Your task to perform on an android device: Search for Italian restaurants on Maps Image 0: 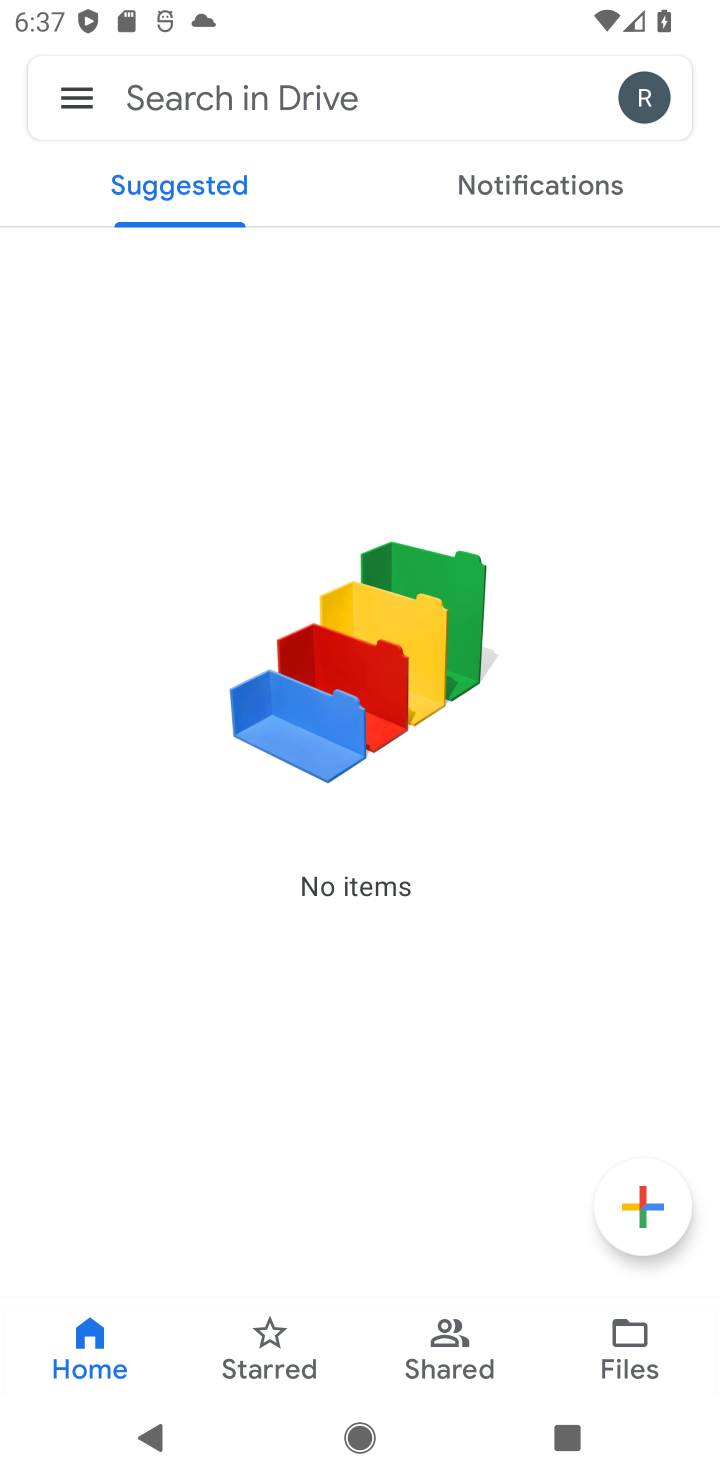
Step 0: press home button
Your task to perform on an android device: Search for Italian restaurants on Maps Image 1: 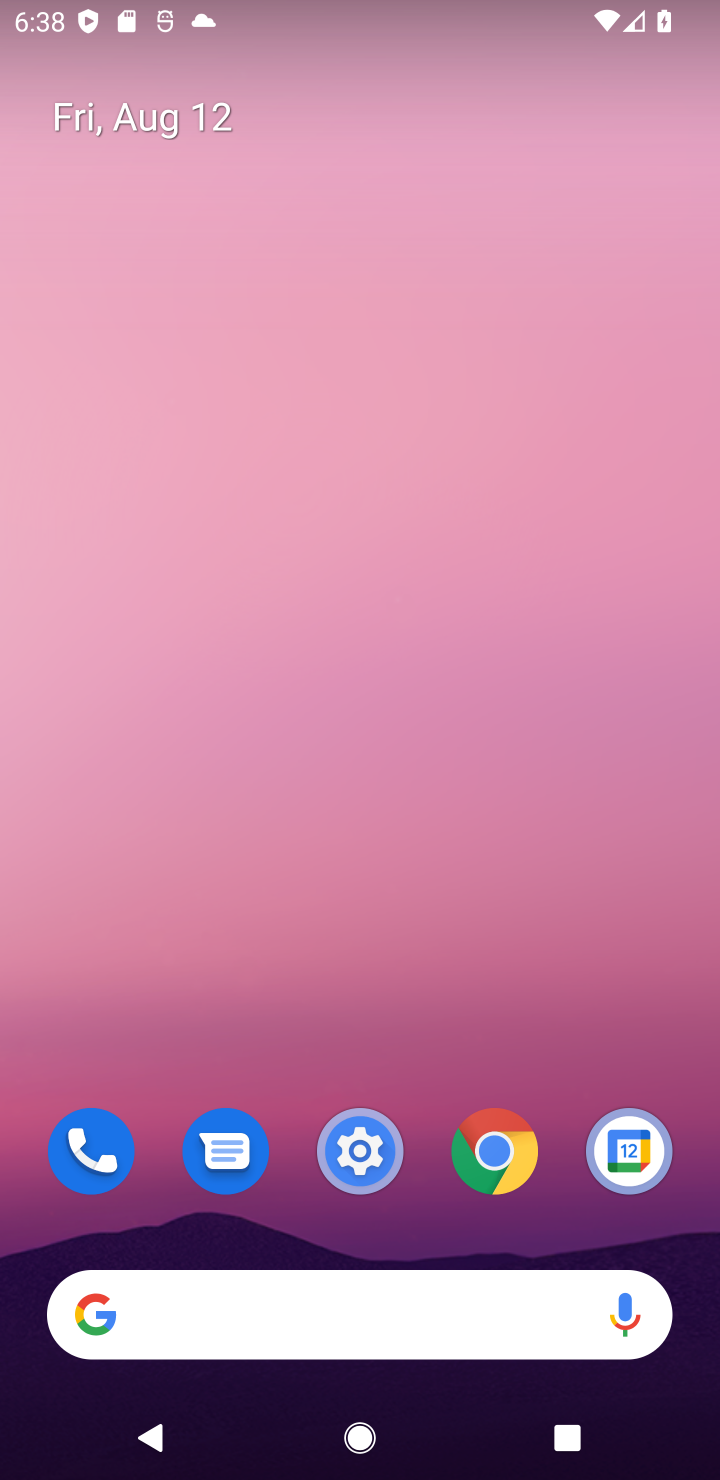
Step 1: drag from (439, 923) to (531, 229)
Your task to perform on an android device: Search for Italian restaurants on Maps Image 2: 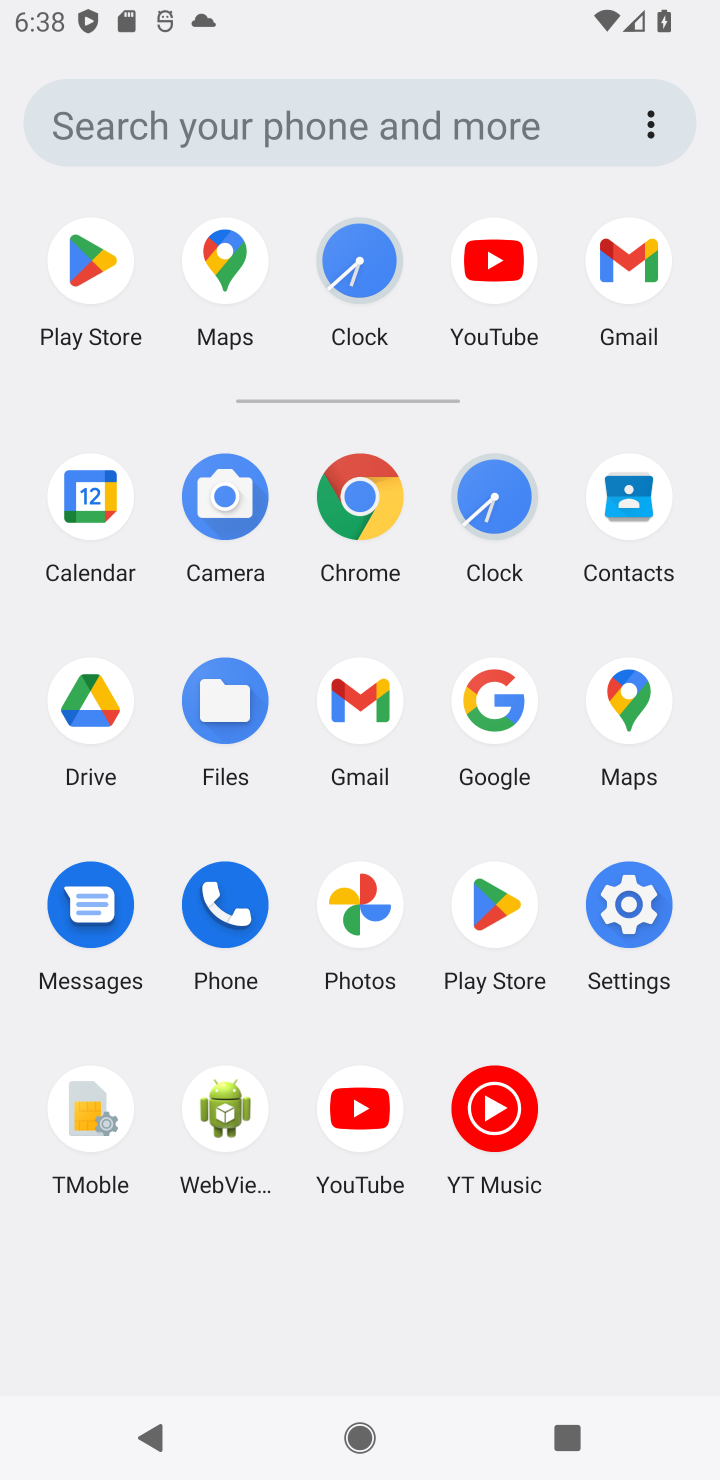
Step 2: click (628, 701)
Your task to perform on an android device: Search for Italian restaurants on Maps Image 3: 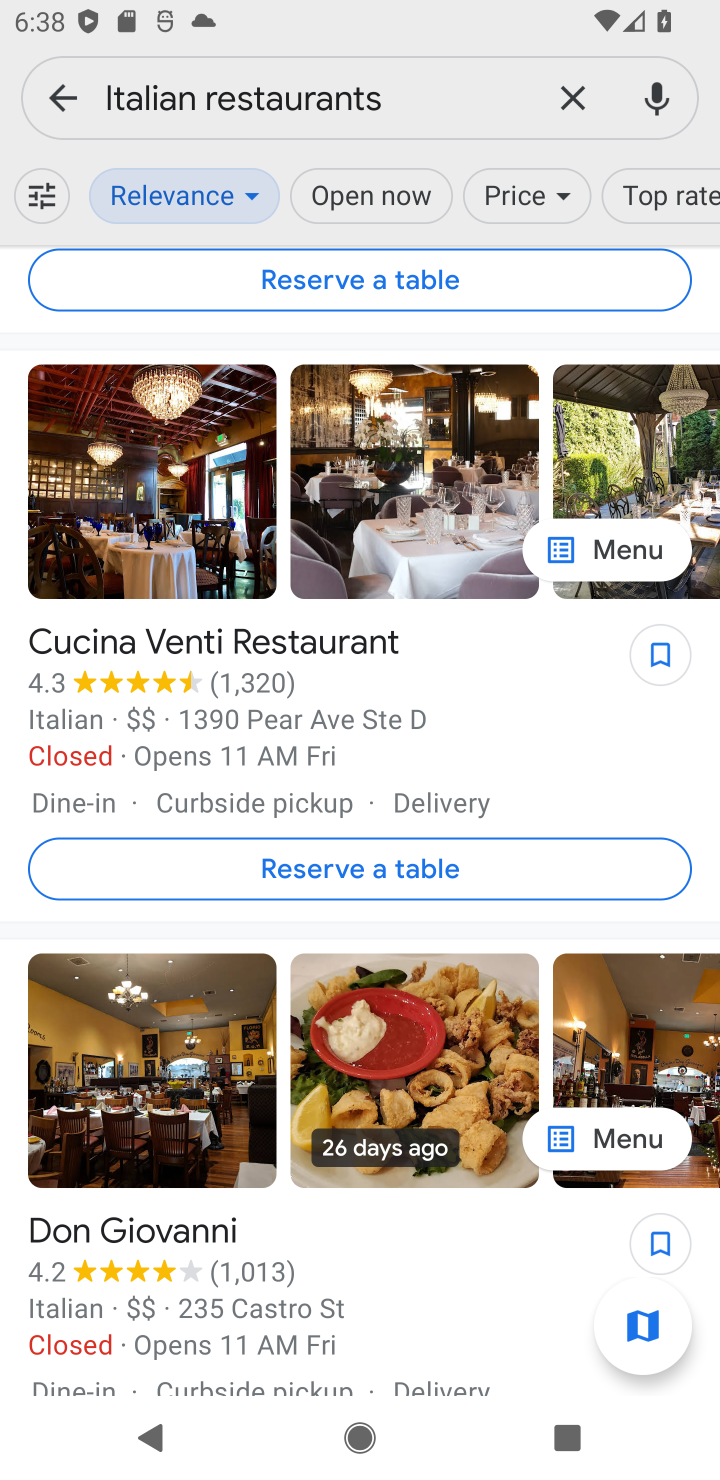
Step 3: task complete